Your task to perform on an android device: Open settings on Google Maps Image 0: 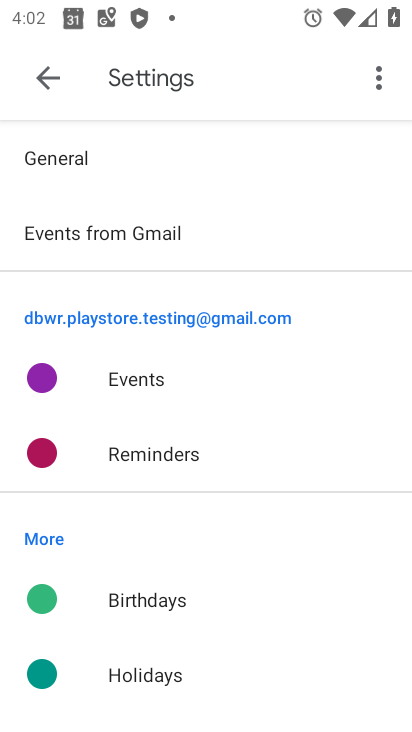
Step 0: press home button
Your task to perform on an android device: Open settings on Google Maps Image 1: 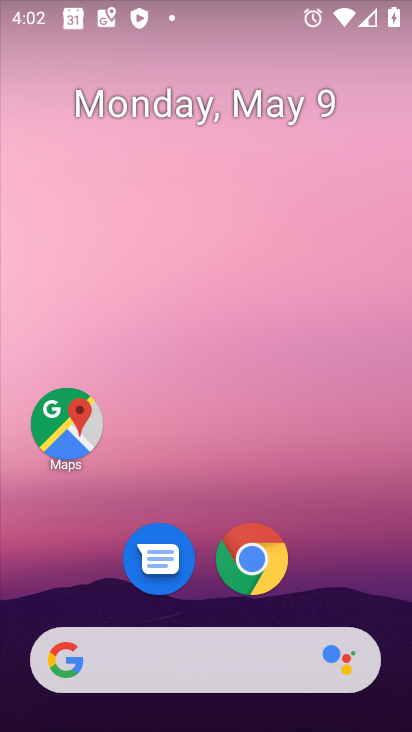
Step 1: drag from (210, 722) to (210, 258)
Your task to perform on an android device: Open settings on Google Maps Image 2: 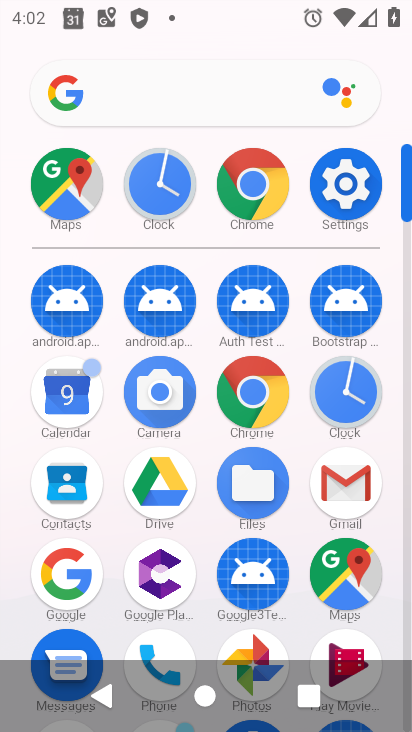
Step 2: click (356, 576)
Your task to perform on an android device: Open settings on Google Maps Image 3: 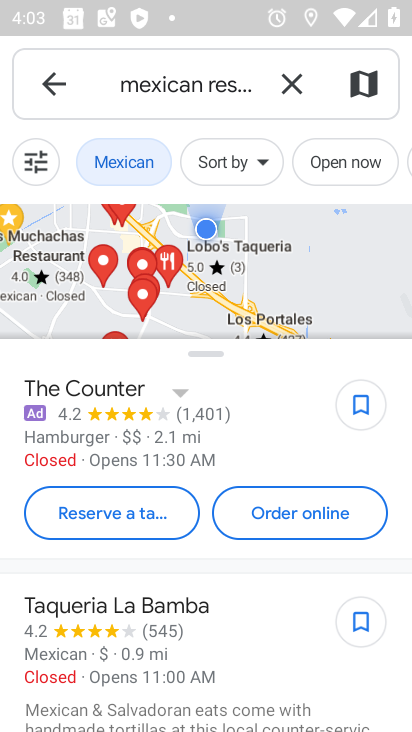
Step 3: click (56, 81)
Your task to perform on an android device: Open settings on Google Maps Image 4: 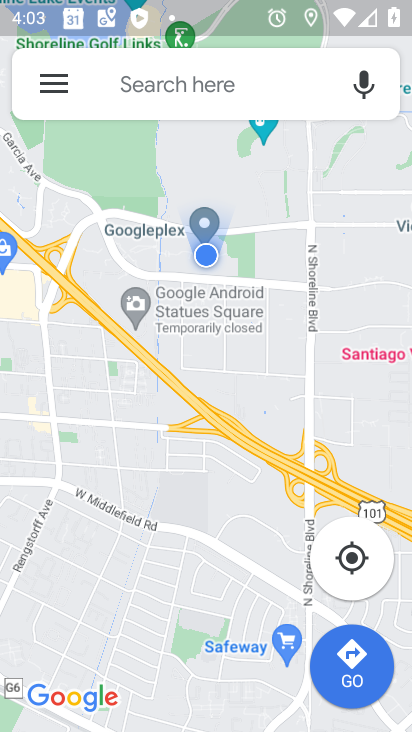
Step 4: click (50, 84)
Your task to perform on an android device: Open settings on Google Maps Image 5: 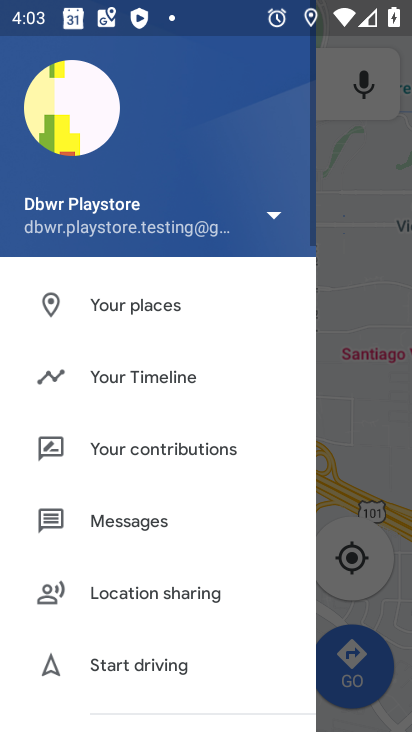
Step 5: drag from (142, 681) to (151, 384)
Your task to perform on an android device: Open settings on Google Maps Image 6: 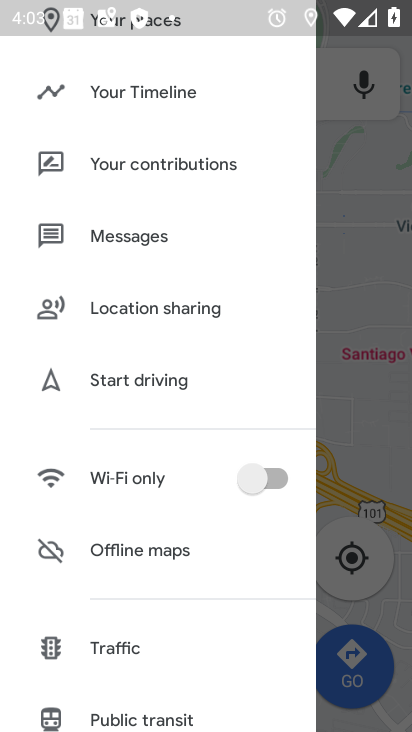
Step 6: drag from (154, 687) to (159, 402)
Your task to perform on an android device: Open settings on Google Maps Image 7: 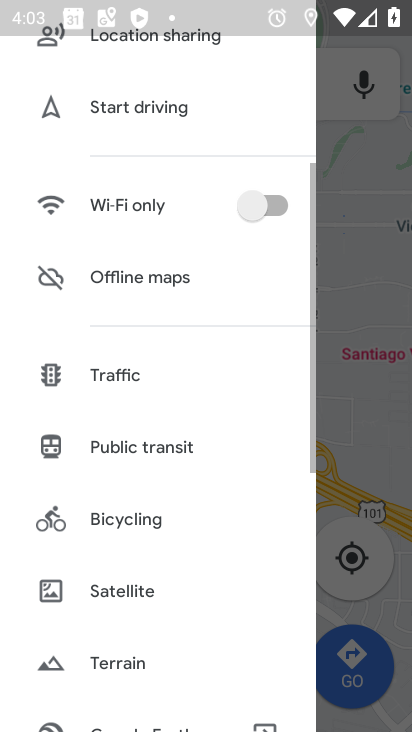
Step 7: drag from (145, 690) to (145, 328)
Your task to perform on an android device: Open settings on Google Maps Image 8: 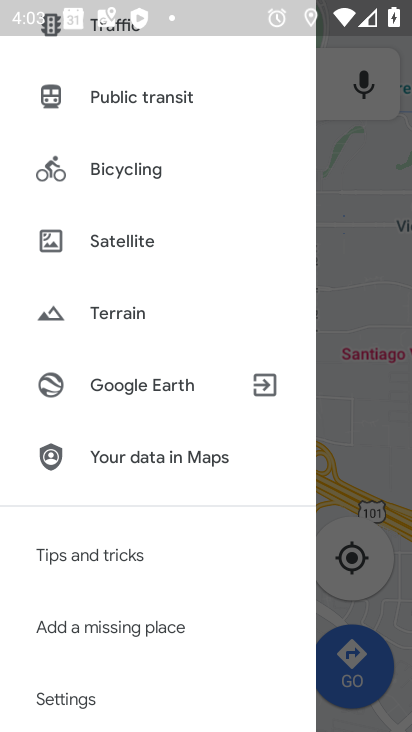
Step 8: drag from (119, 695) to (131, 417)
Your task to perform on an android device: Open settings on Google Maps Image 9: 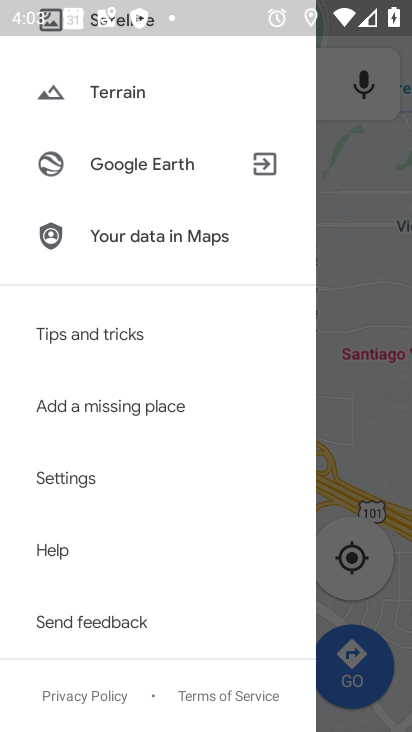
Step 9: click (79, 480)
Your task to perform on an android device: Open settings on Google Maps Image 10: 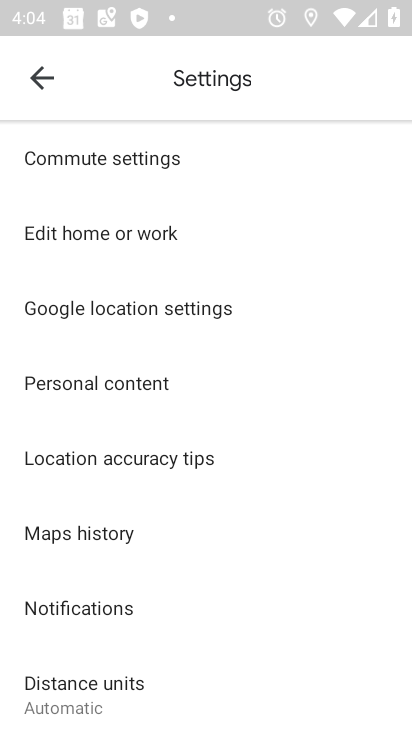
Step 10: task complete